Your task to perform on an android device: change the upload size in google photos Image 0: 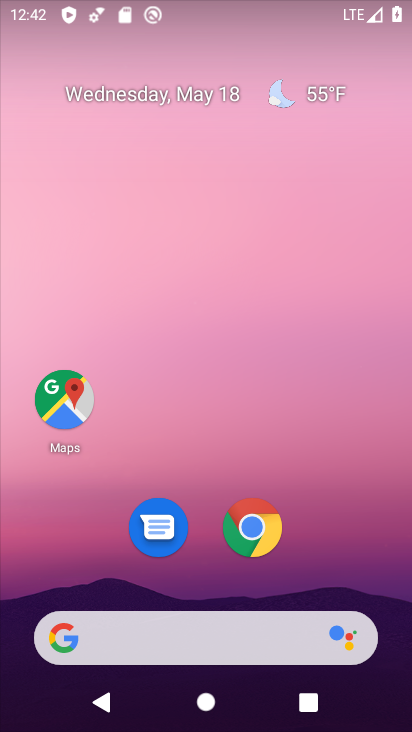
Step 0: drag from (335, 459) to (278, 25)
Your task to perform on an android device: change the upload size in google photos Image 1: 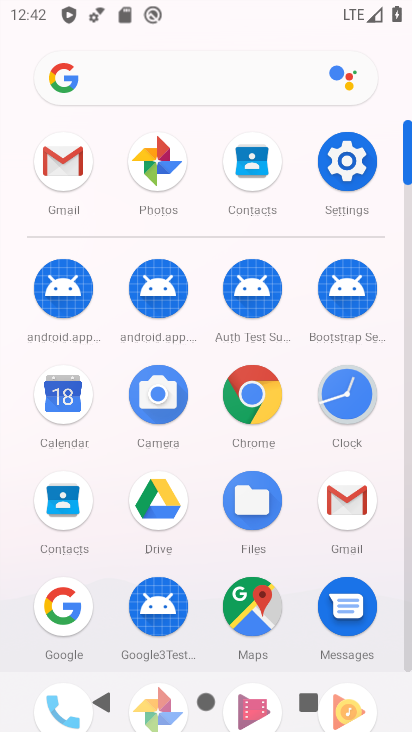
Step 1: click (162, 169)
Your task to perform on an android device: change the upload size in google photos Image 2: 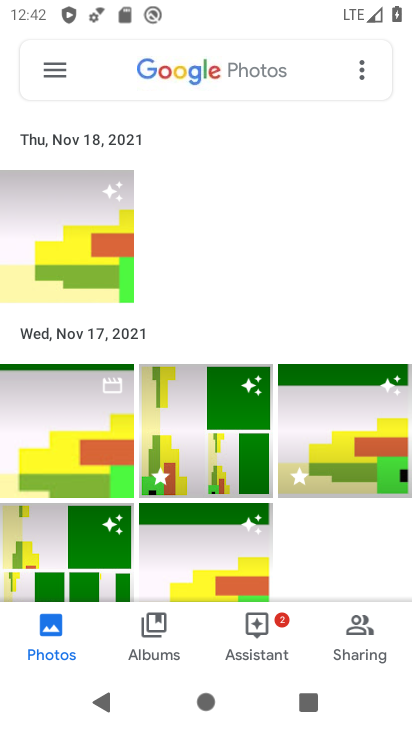
Step 2: click (54, 69)
Your task to perform on an android device: change the upload size in google photos Image 3: 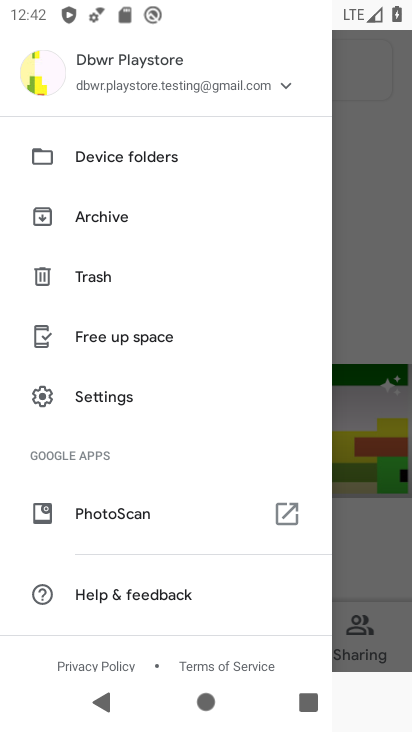
Step 3: click (131, 391)
Your task to perform on an android device: change the upload size in google photos Image 4: 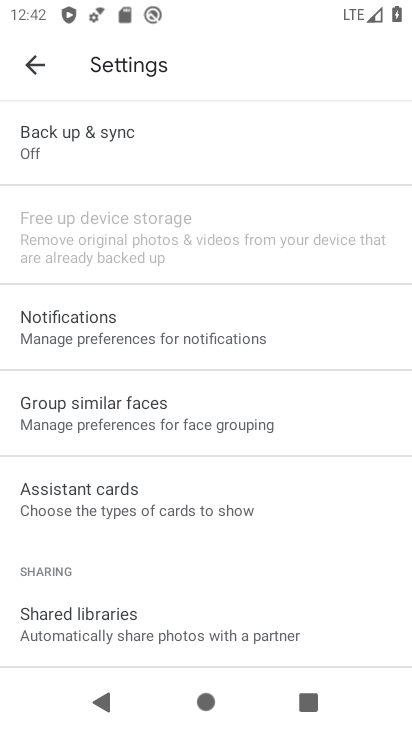
Step 4: click (96, 143)
Your task to perform on an android device: change the upload size in google photos Image 5: 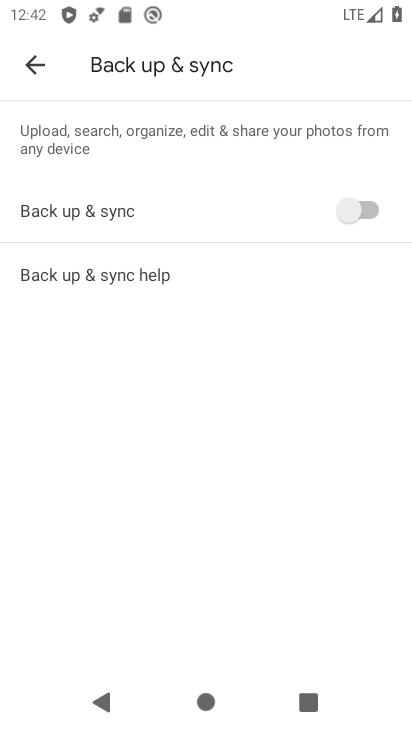
Step 5: click (370, 204)
Your task to perform on an android device: change the upload size in google photos Image 6: 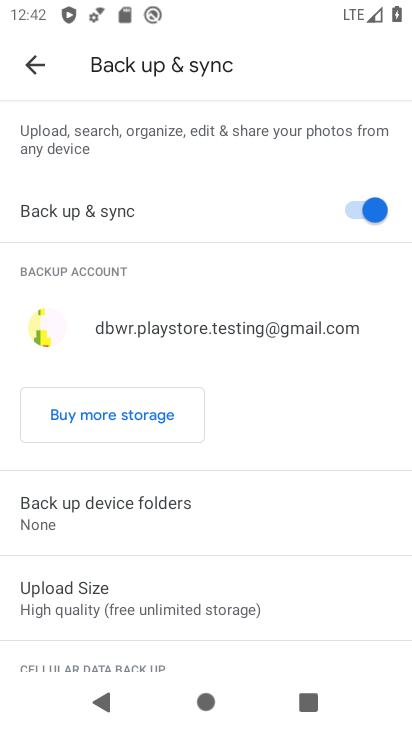
Step 6: click (152, 595)
Your task to perform on an android device: change the upload size in google photos Image 7: 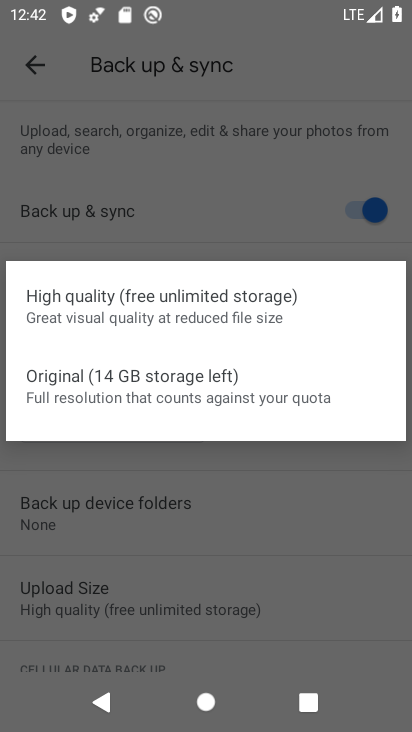
Step 7: click (163, 374)
Your task to perform on an android device: change the upload size in google photos Image 8: 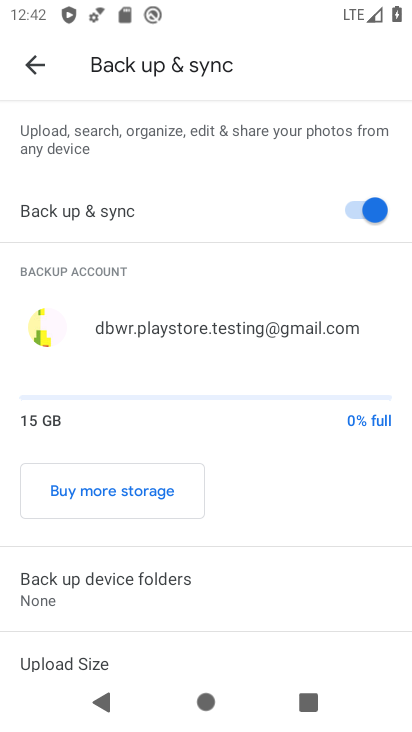
Step 8: task complete